Your task to perform on an android device: open app "Microsoft Outlook" (install if not already installed) Image 0: 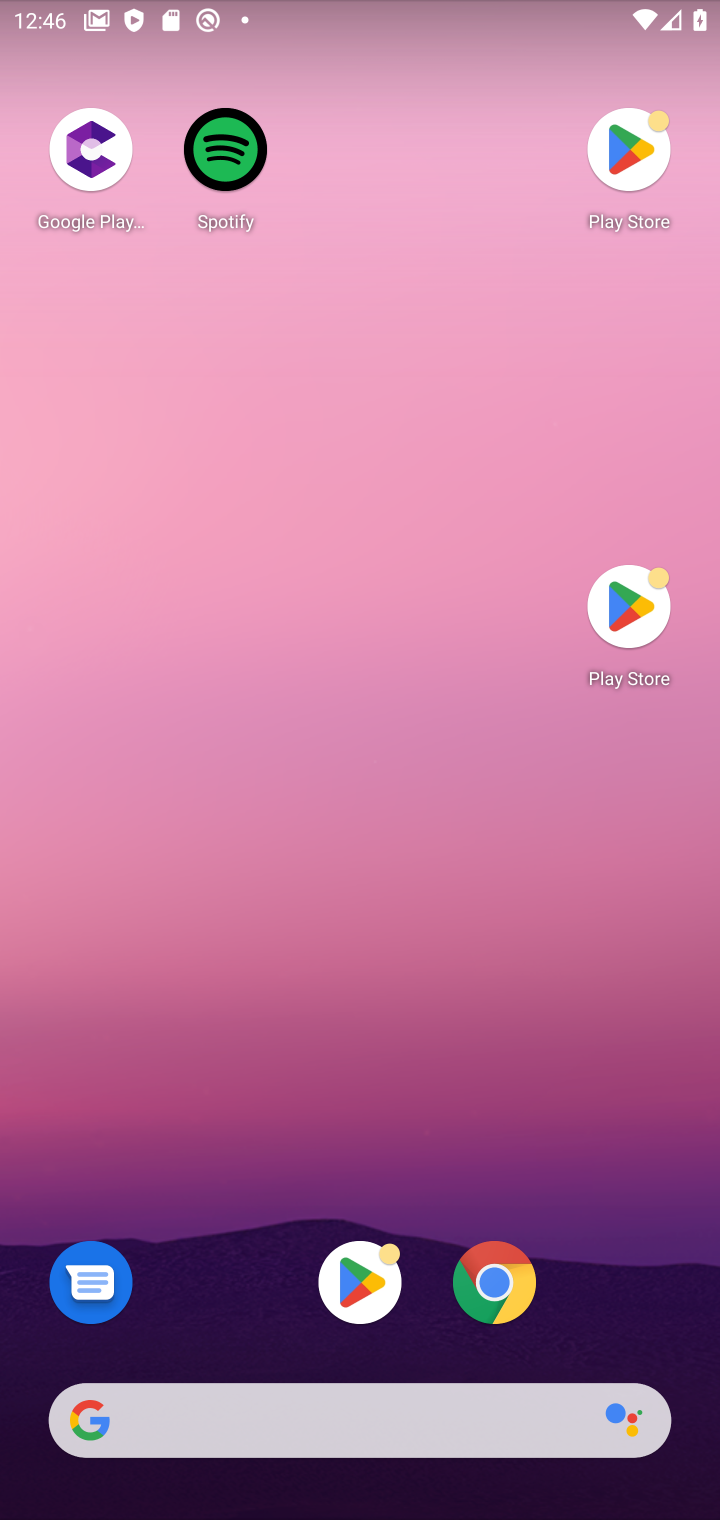
Step 0: drag from (417, 290) to (116, 149)
Your task to perform on an android device: open app "Microsoft Outlook" (install if not already installed) Image 1: 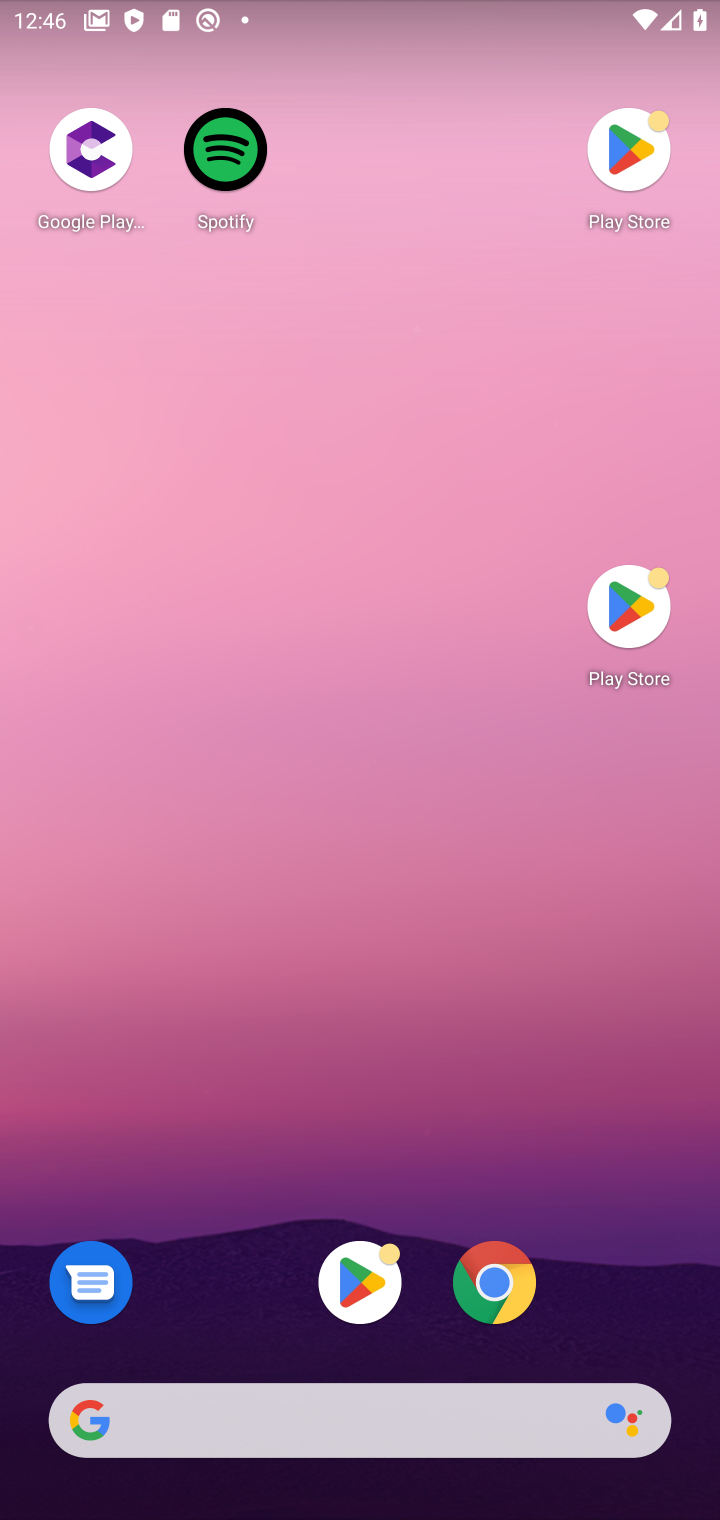
Step 1: click (320, 48)
Your task to perform on an android device: open app "Microsoft Outlook" (install if not already installed) Image 2: 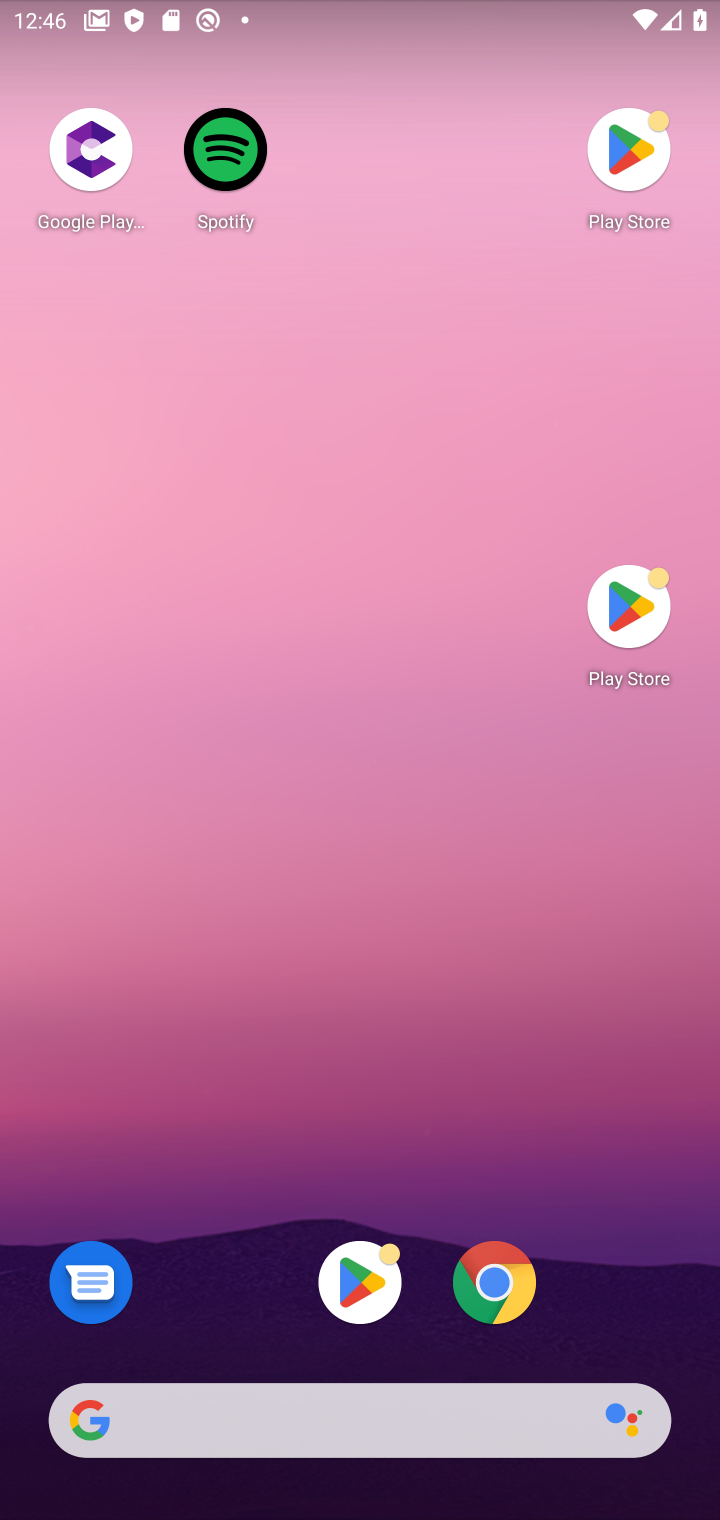
Step 2: click (406, 49)
Your task to perform on an android device: open app "Microsoft Outlook" (install if not already installed) Image 3: 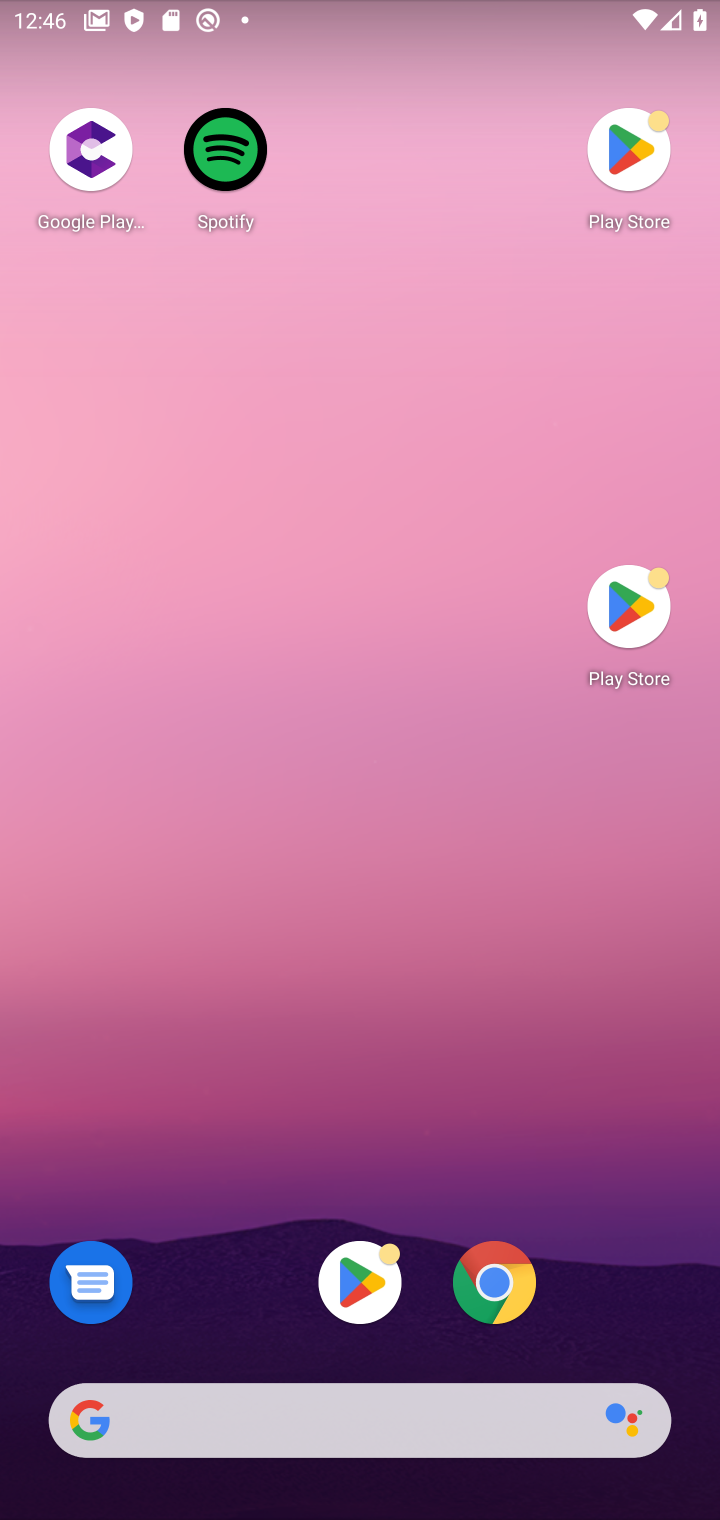
Step 3: click (387, 546)
Your task to perform on an android device: open app "Microsoft Outlook" (install if not already installed) Image 4: 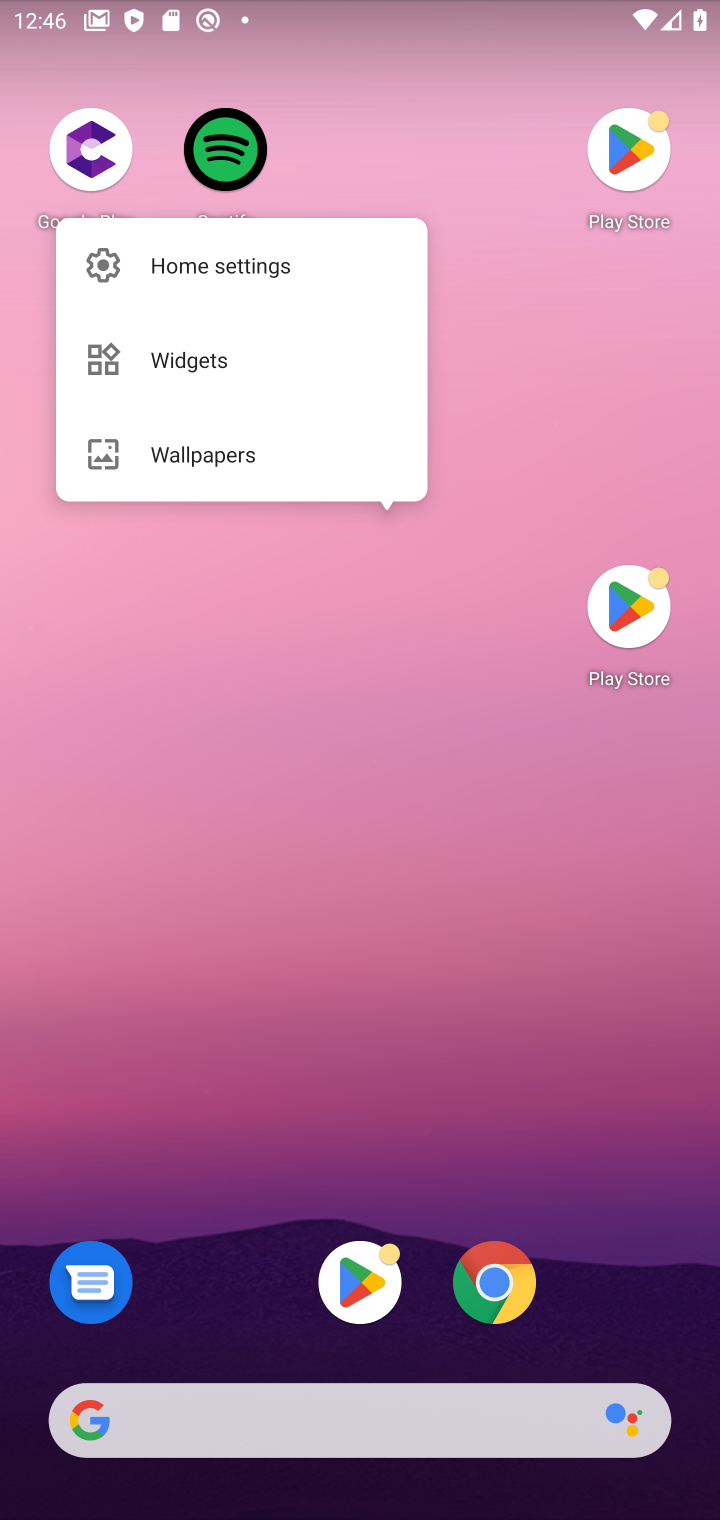
Step 4: drag from (342, 720) to (437, 773)
Your task to perform on an android device: open app "Microsoft Outlook" (install if not already installed) Image 5: 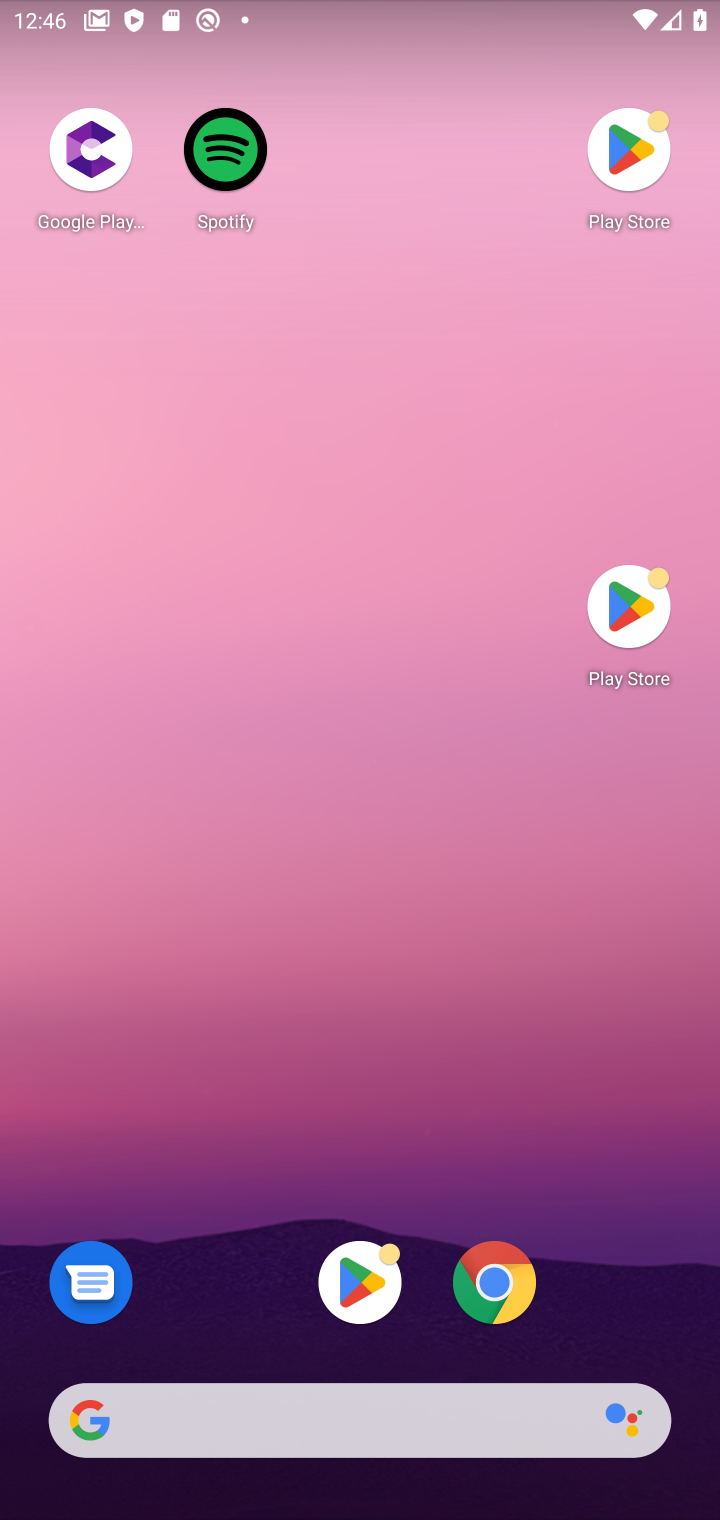
Step 5: drag from (263, 336) to (552, 129)
Your task to perform on an android device: open app "Microsoft Outlook" (install if not already installed) Image 6: 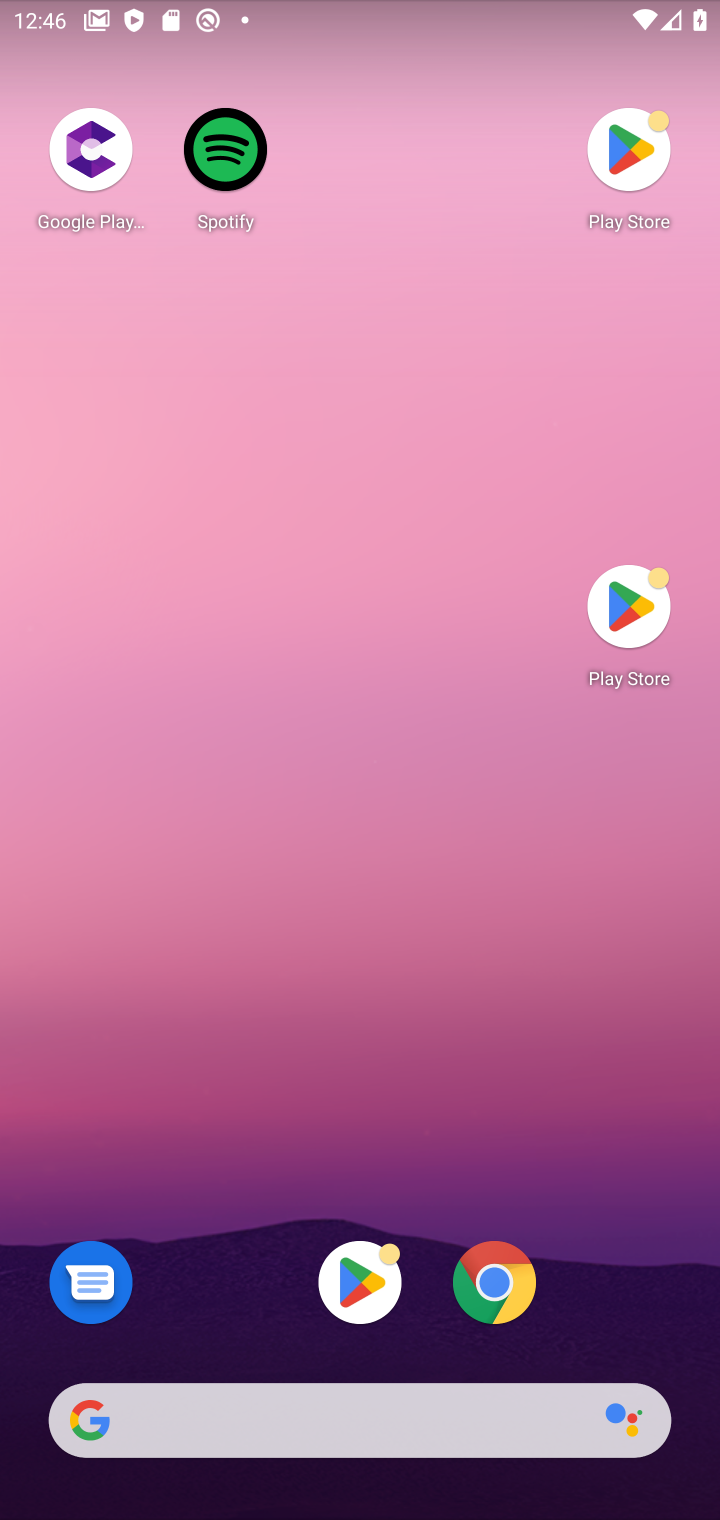
Step 6: drag from (414, 205) to (369, 25)
Your task to perform on an android device: open app "Microsoft Outlook" (install if not already installed) Image 7: 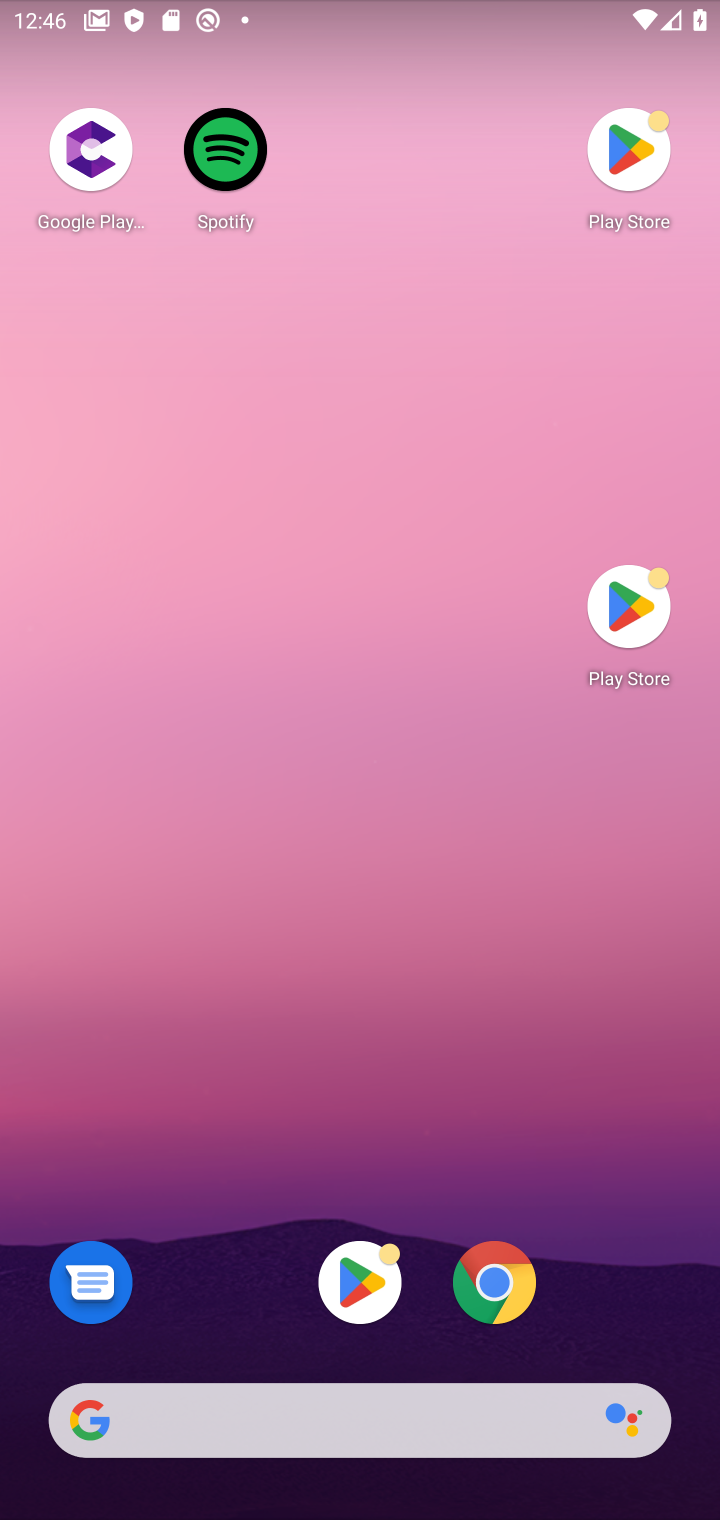
Step 7: drag from (417, 1074) to (539, 21)
Your task to perform on an android device: open app "Microsoft Outlook" (install if not already installed) Image 8: 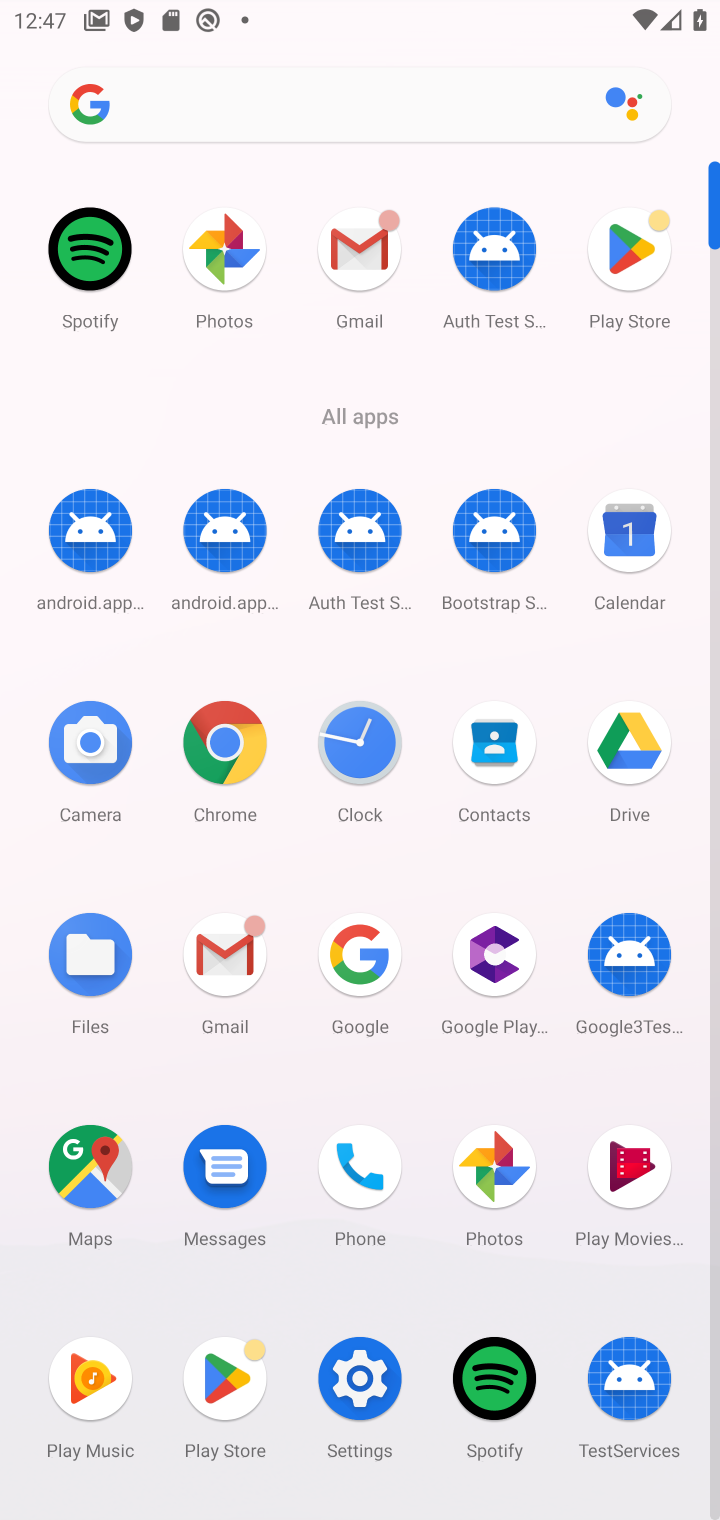
Step 8: click (214, 1379)
Your task to perform on an android device: open app "Microsoft Outlook" (install if not already installed) Image 9: 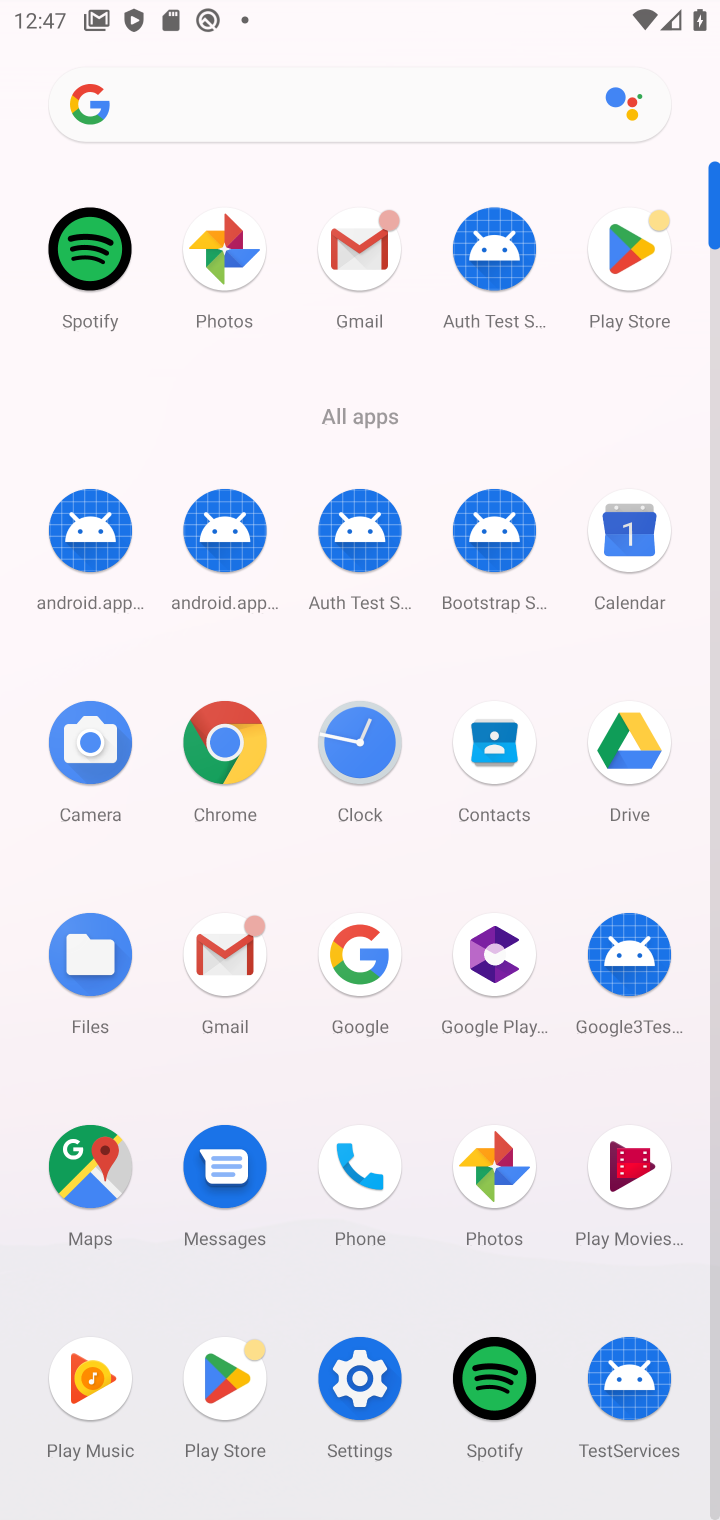
Step 9: drag from (214, 1379) to (275, 1428)
Your task to perform on an android device: open app "Microsoft Outlook" (install if not already installed) Image 10: 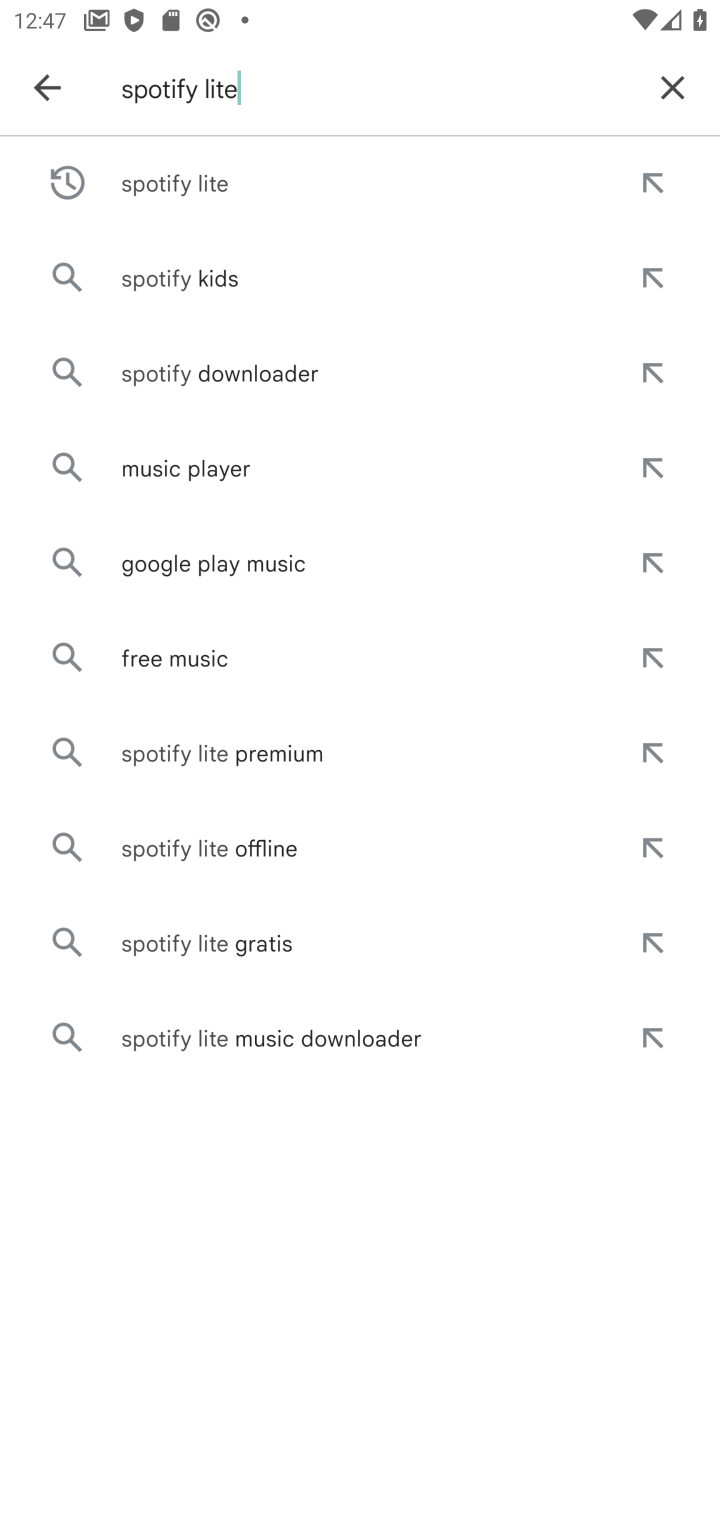
Step 10: click (249, 1410)
Your task to perform on an android device: open app "Microsoft Outlook" (install if not already installed) Image 11: 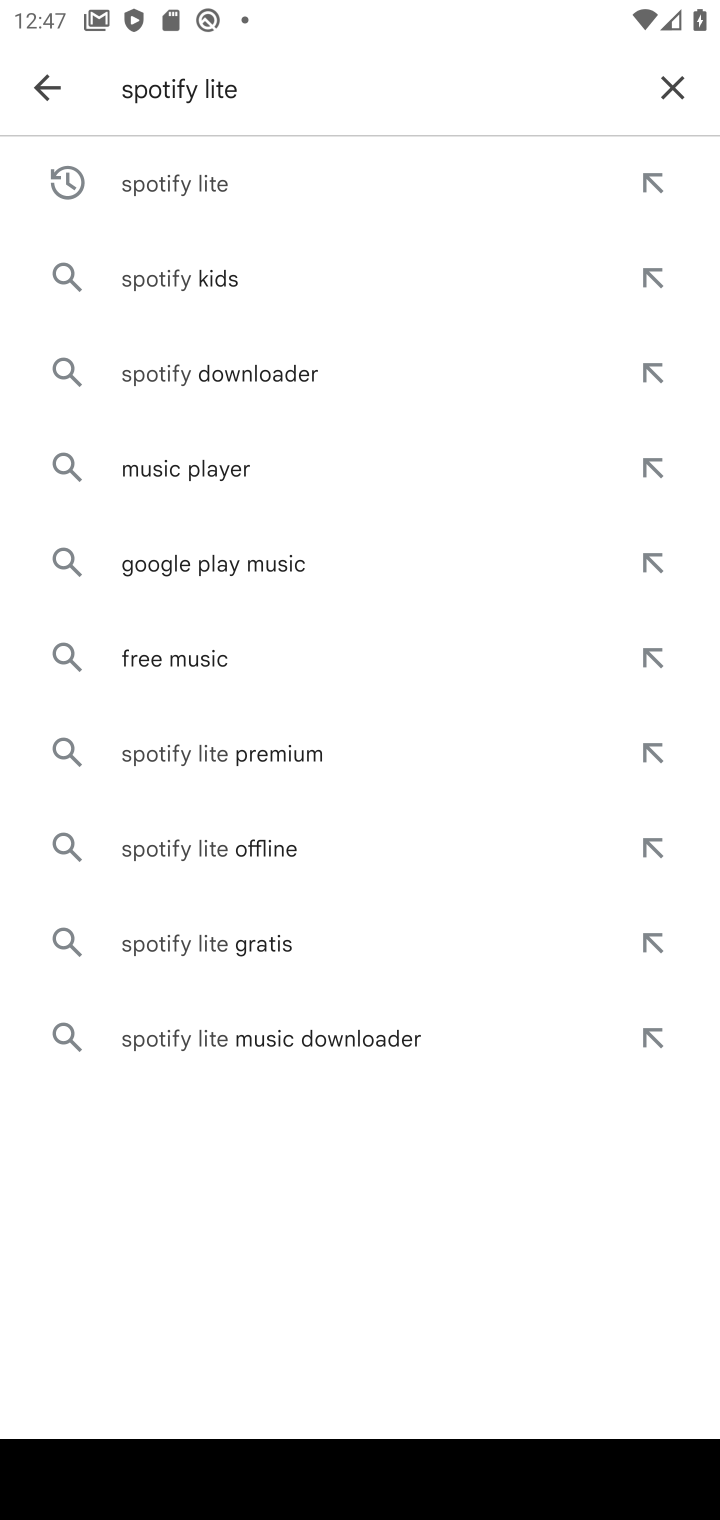
Step 11: click (658, 88)
Your task to perform on an android device: open app "Microsoft Outlook" (install if not already installed) Image 12: 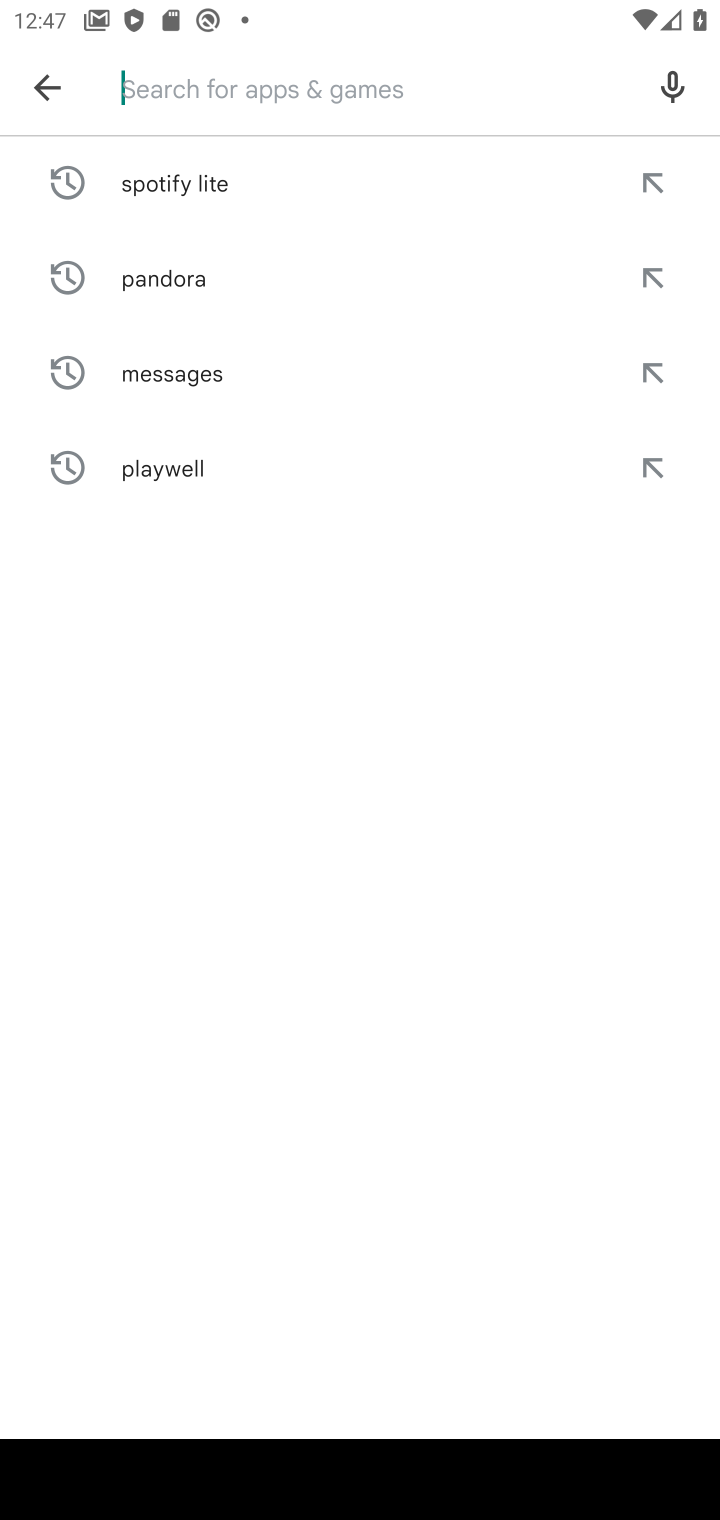
Step 12: type "Microsoft Outlook"
Your task to perform on an android device: open app "Microsoft Outlook" (install if not already installed) Image 13: 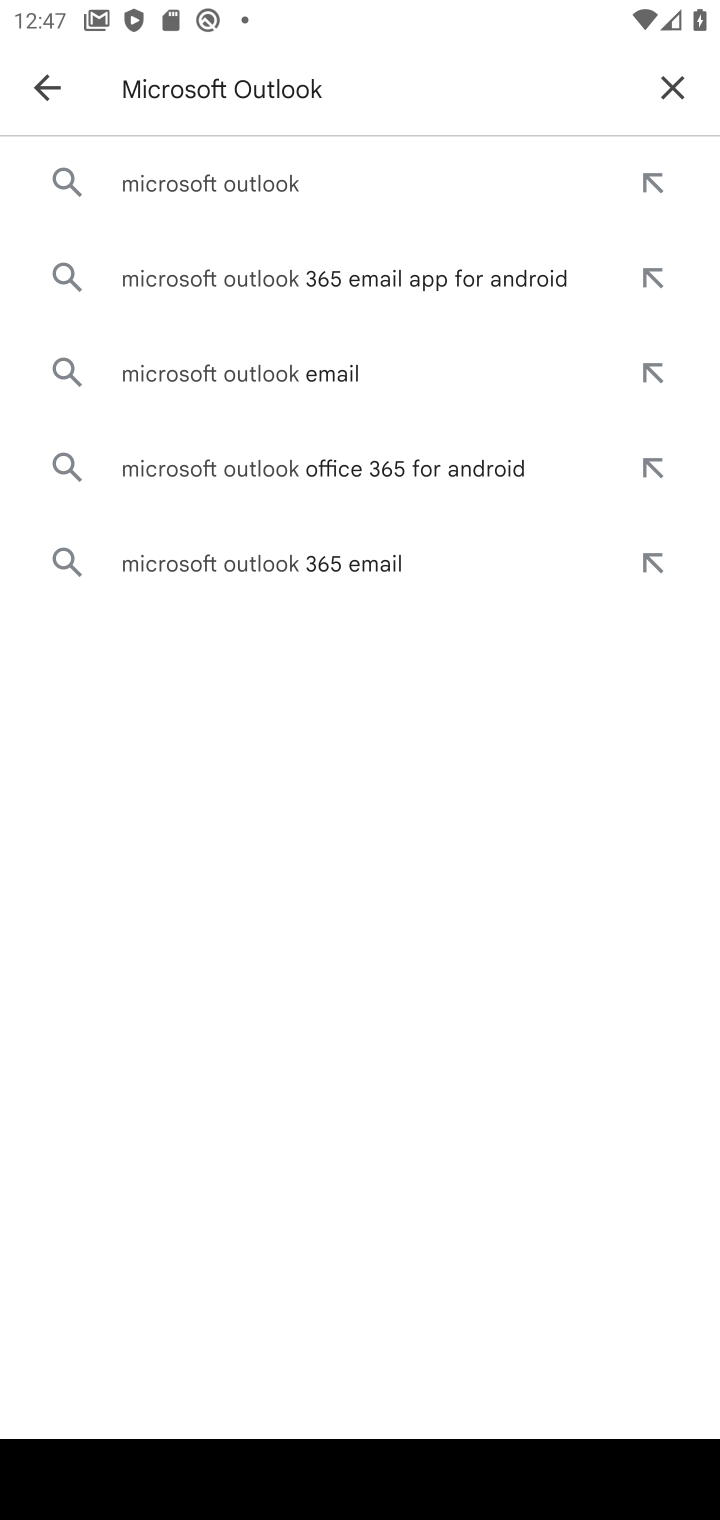
Step 13: click (224, 171)
Your task to perform on an android device: open app "Microsoft Outlook" (install if not already installed) Image 14: 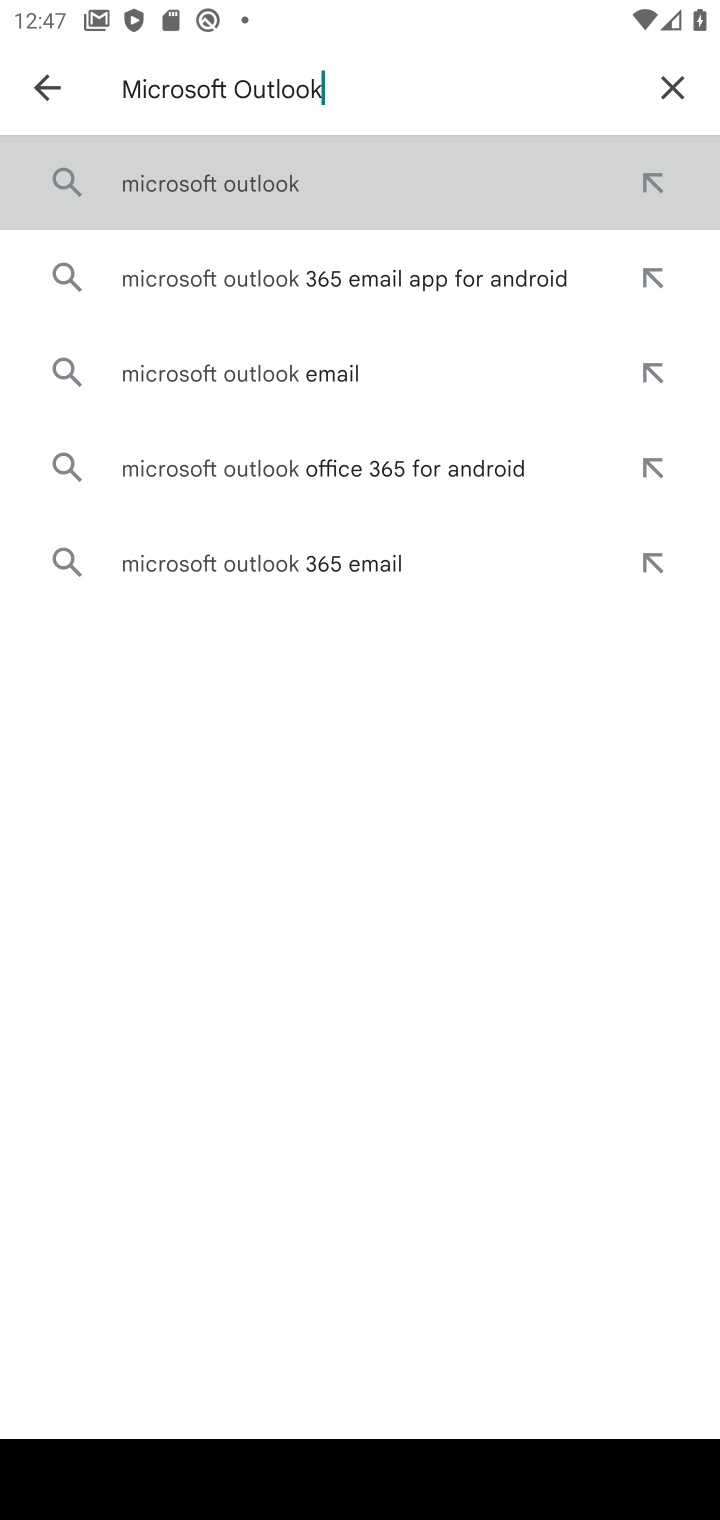
Step 14: click (233, 179)
Your task to perform on an android device: open app "Microsoft Outlook" (install if not already installed) Image 15: 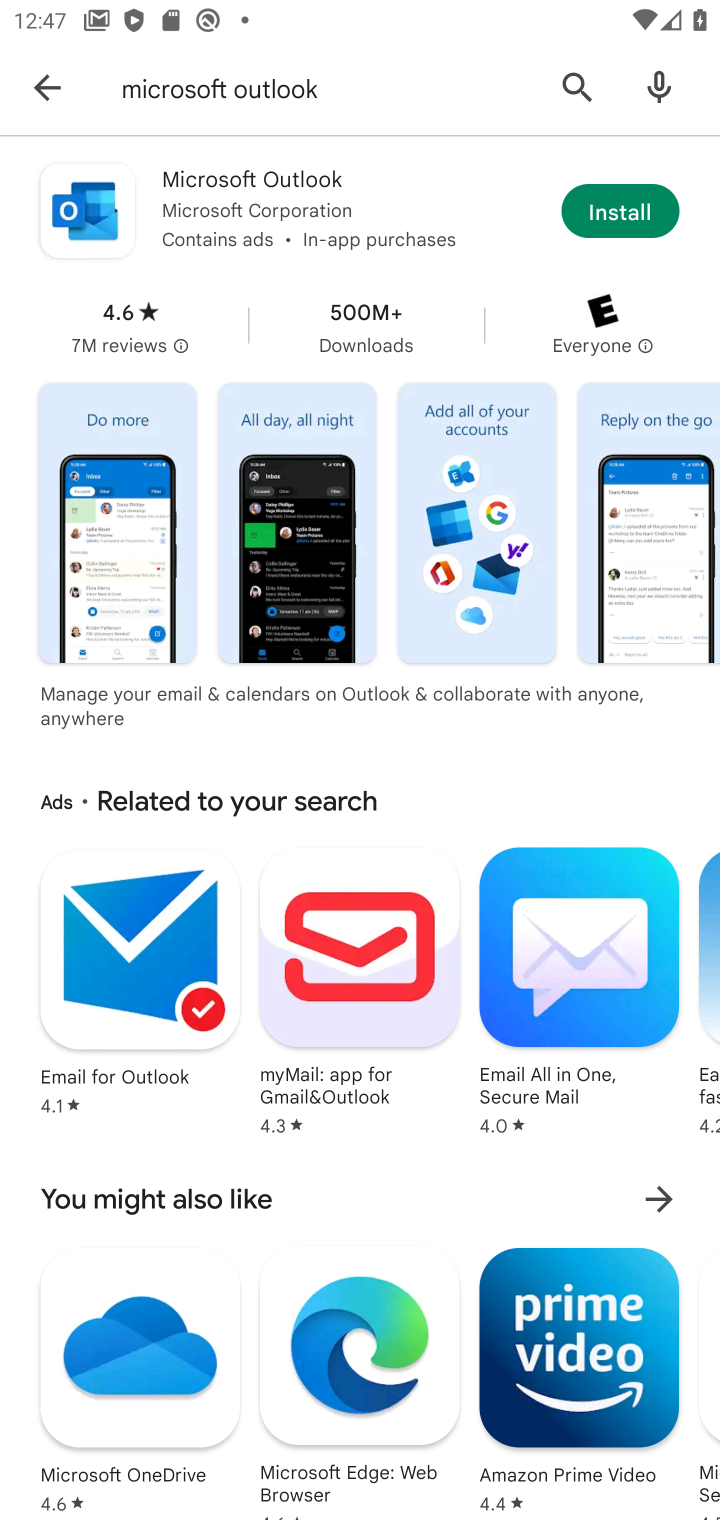
Step 15: click (634, 198)
Your task to perform on an android device: open app "Microsoft Outlook" (install if not already installed) Image 16: 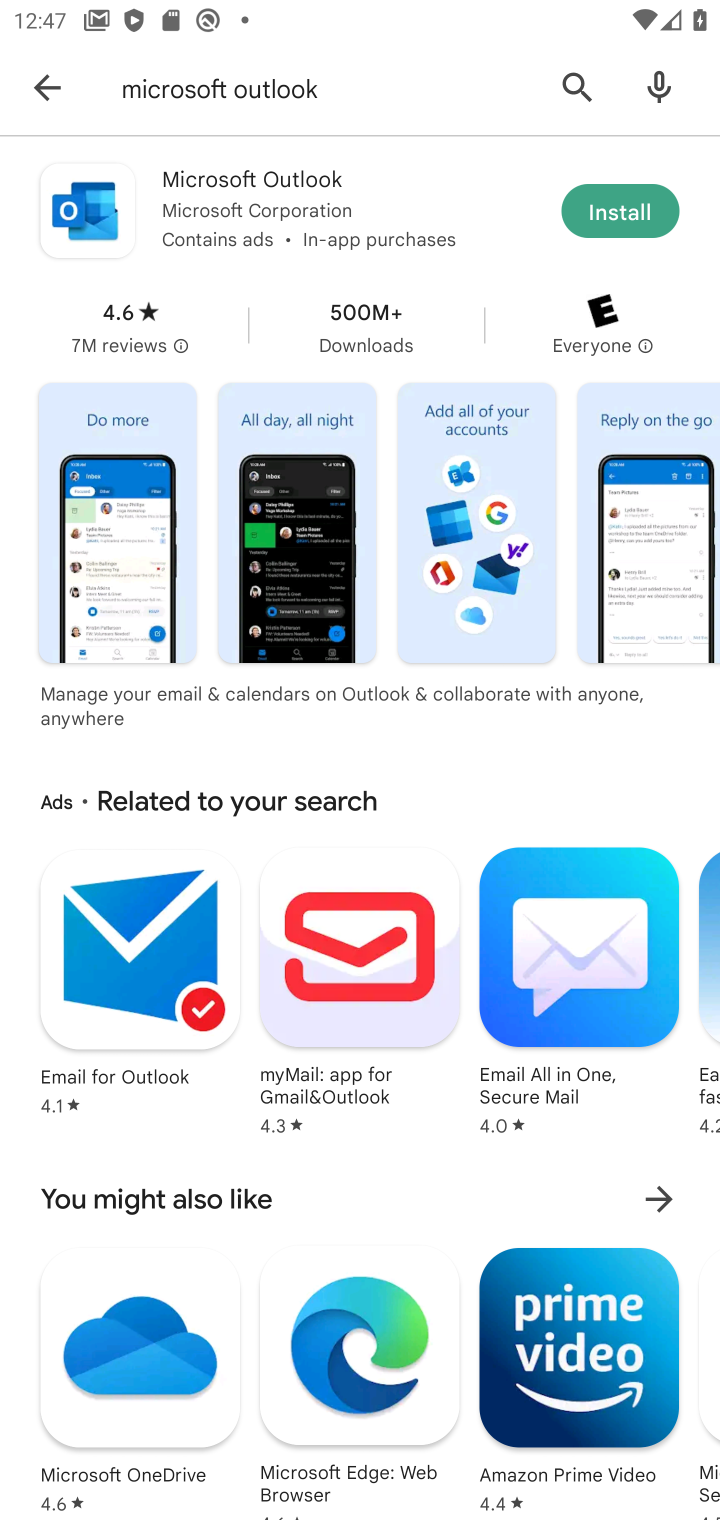
Step 16: click (639, 203)
Your task to perform on an android device: open app "Microsoft Outlook" (install if not already installed) Image 17: 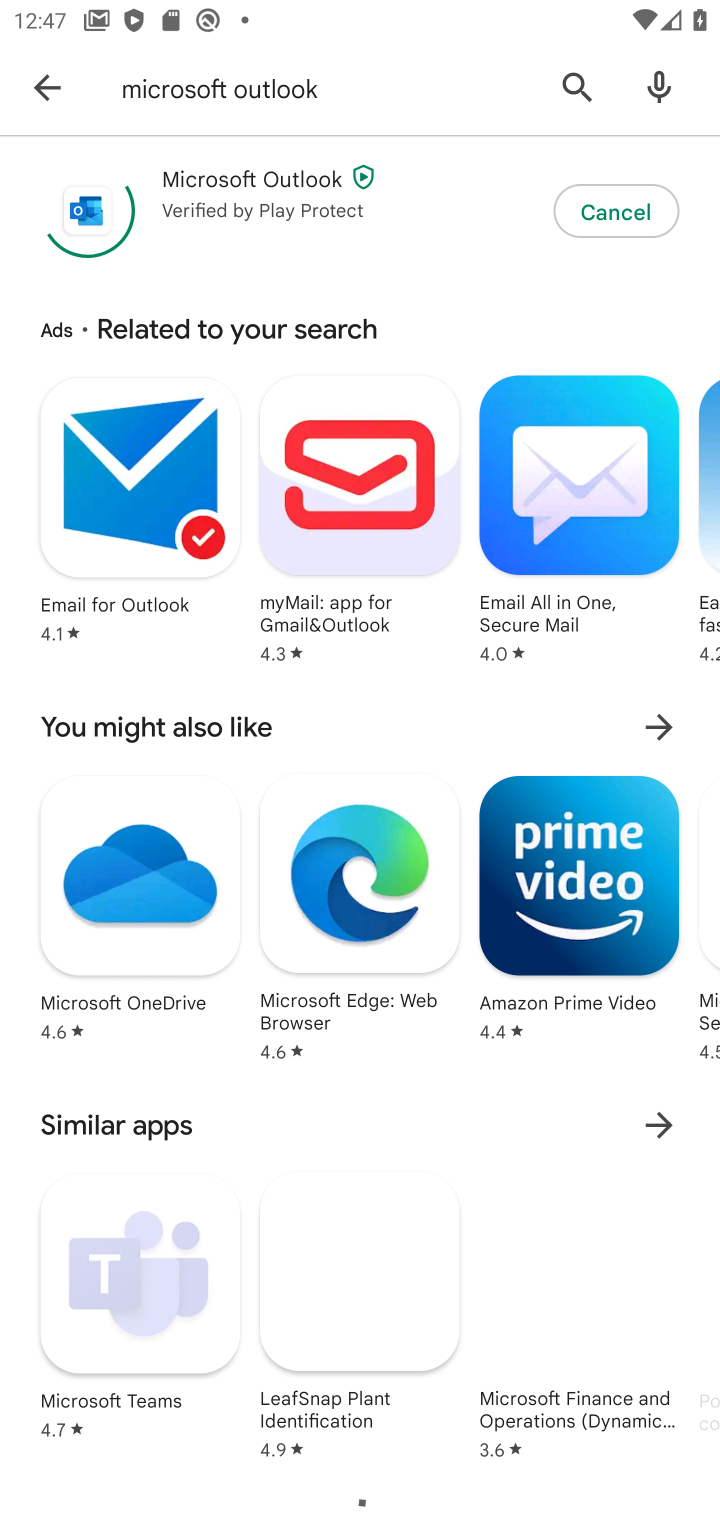
Step 17: click (641, 205)
Your task to perform on an android device: open app "Microsoft Outlook" (install if not already installed) Image 18: 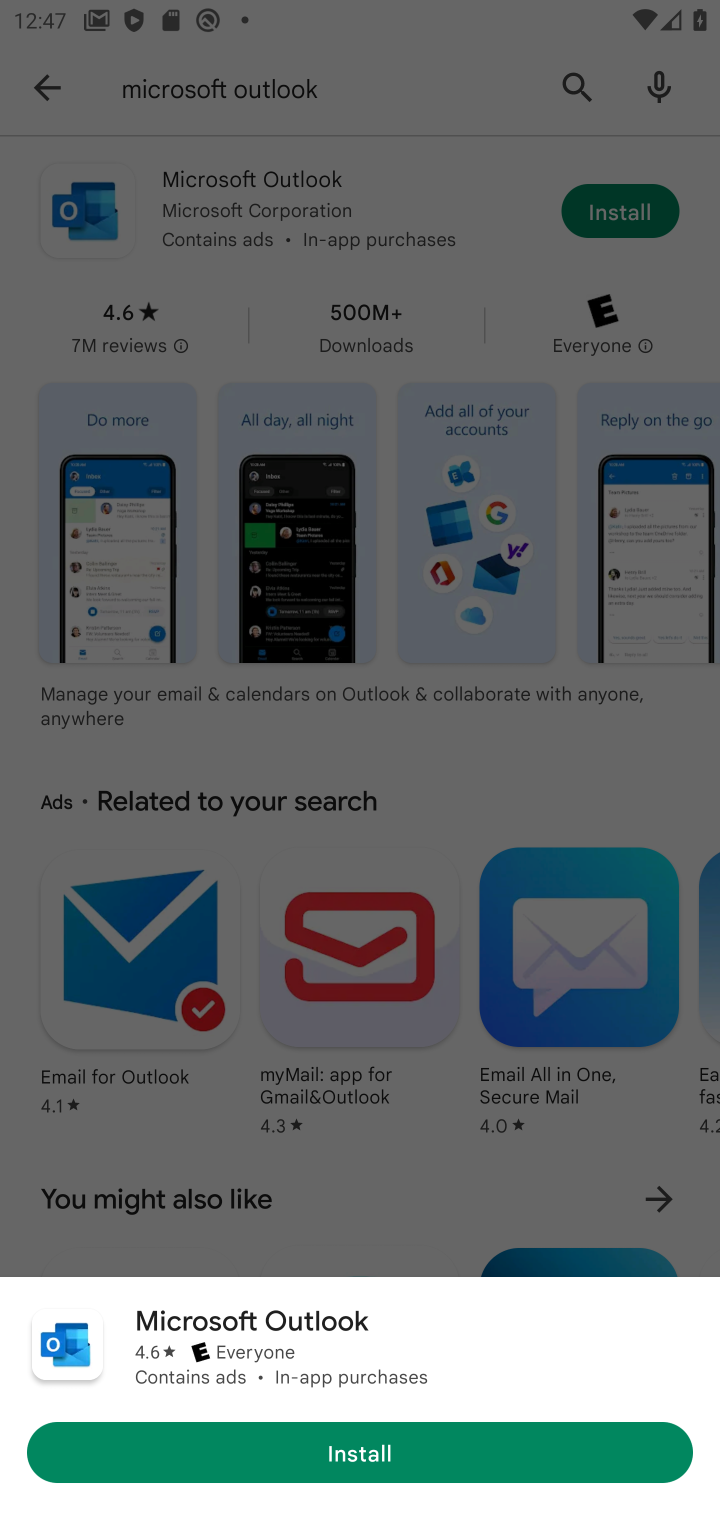
Step 18: click (379, 1451)
Your task to perform on an android device: open app "Microsoft Outlook" (install if not already installed) Image 19: 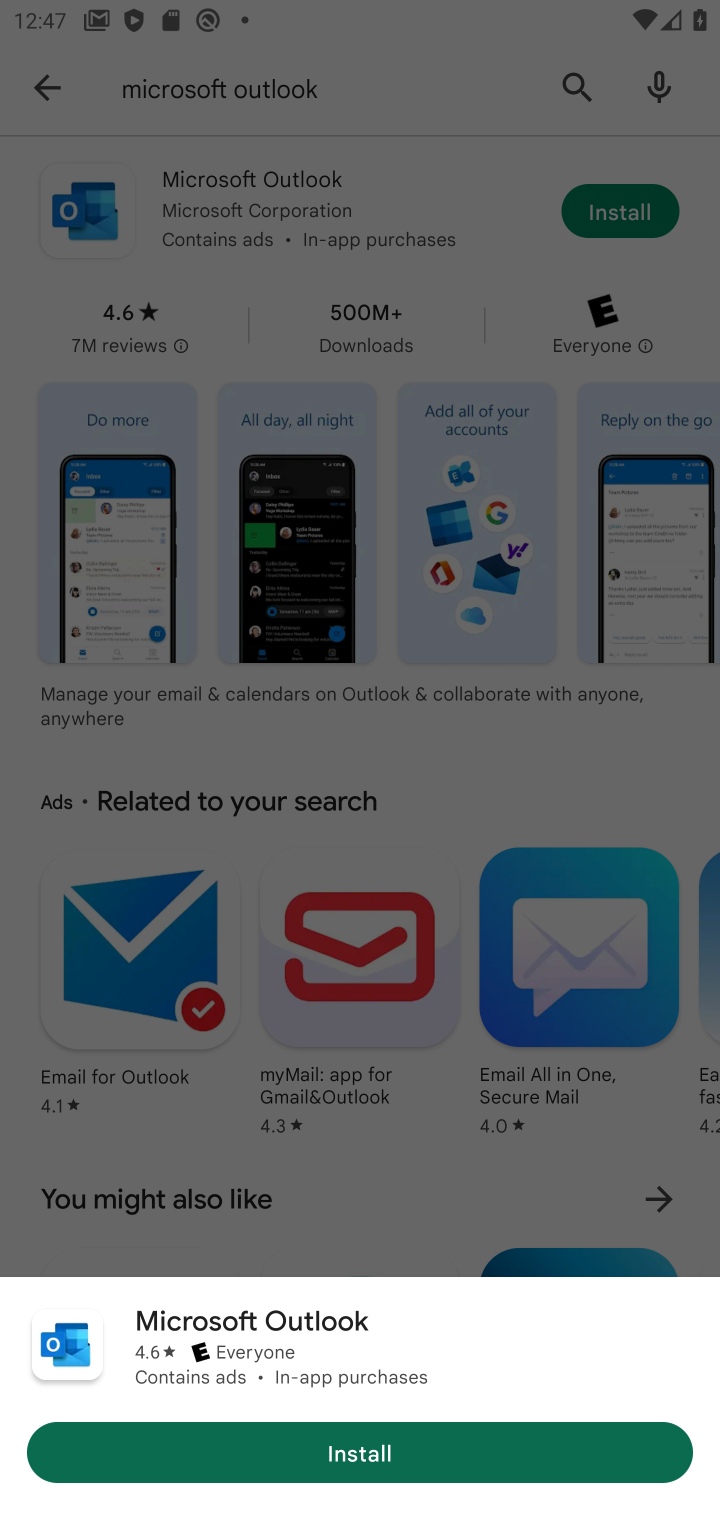
Step 19: click (379, 1442)
Your task to perform on an android device: open app "Microsoft Outlook" (install if not already installed) Image 20: 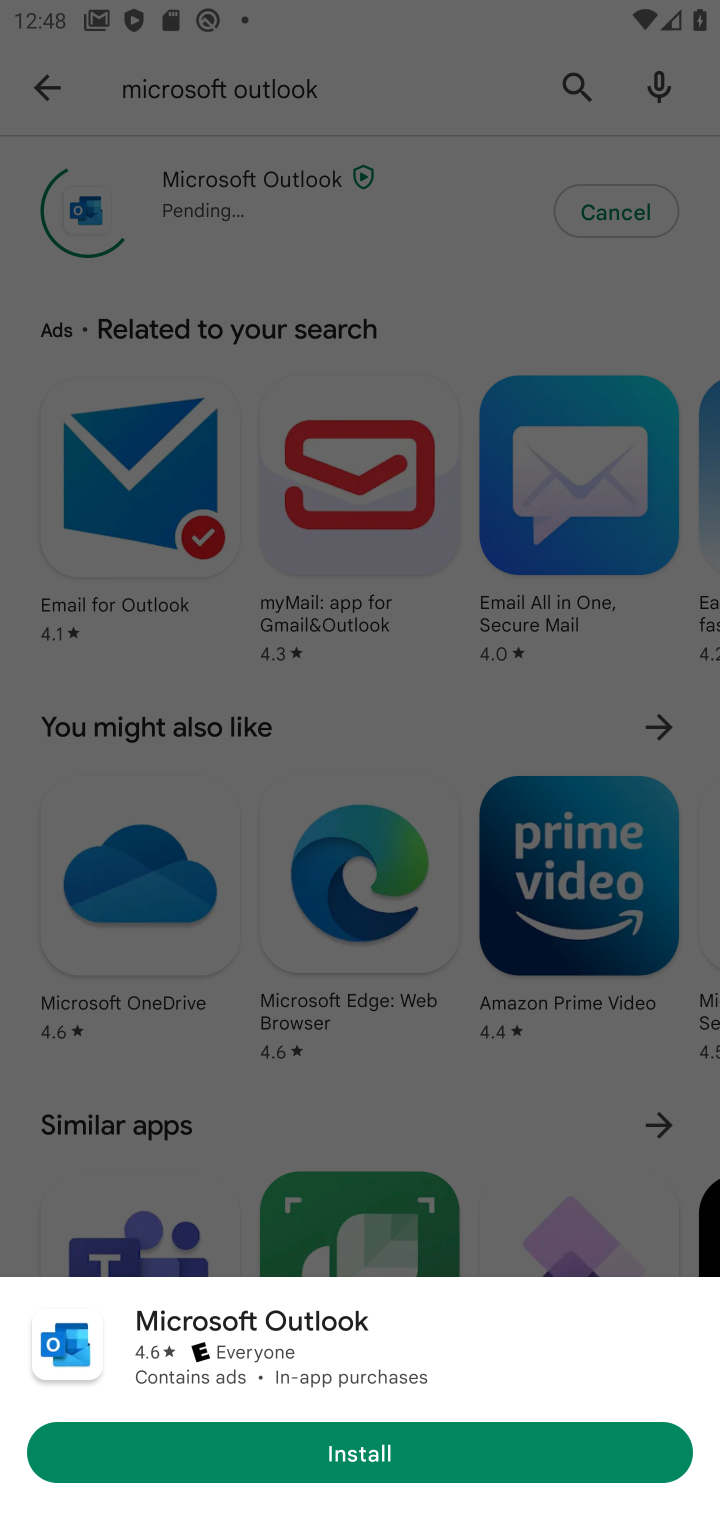
Step 20: click (395, 1475)
Your task to perform on an android device: open app "Microsoft Outlook" (install if not already installed) Image 21: 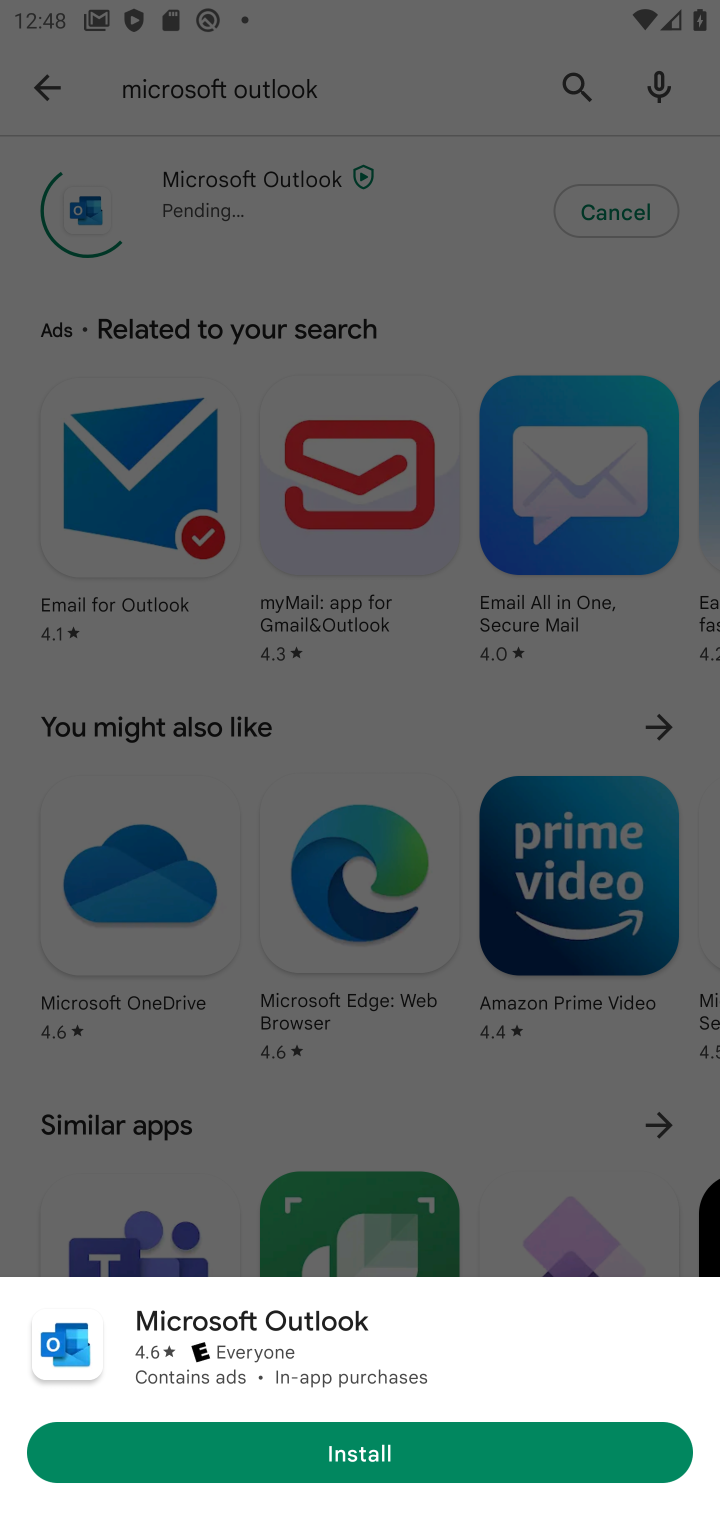
Step 21: click (395, 1475)
Your task to perform on an android device: open app "Microsoft Outlook" (install if not already installed) Image 22: 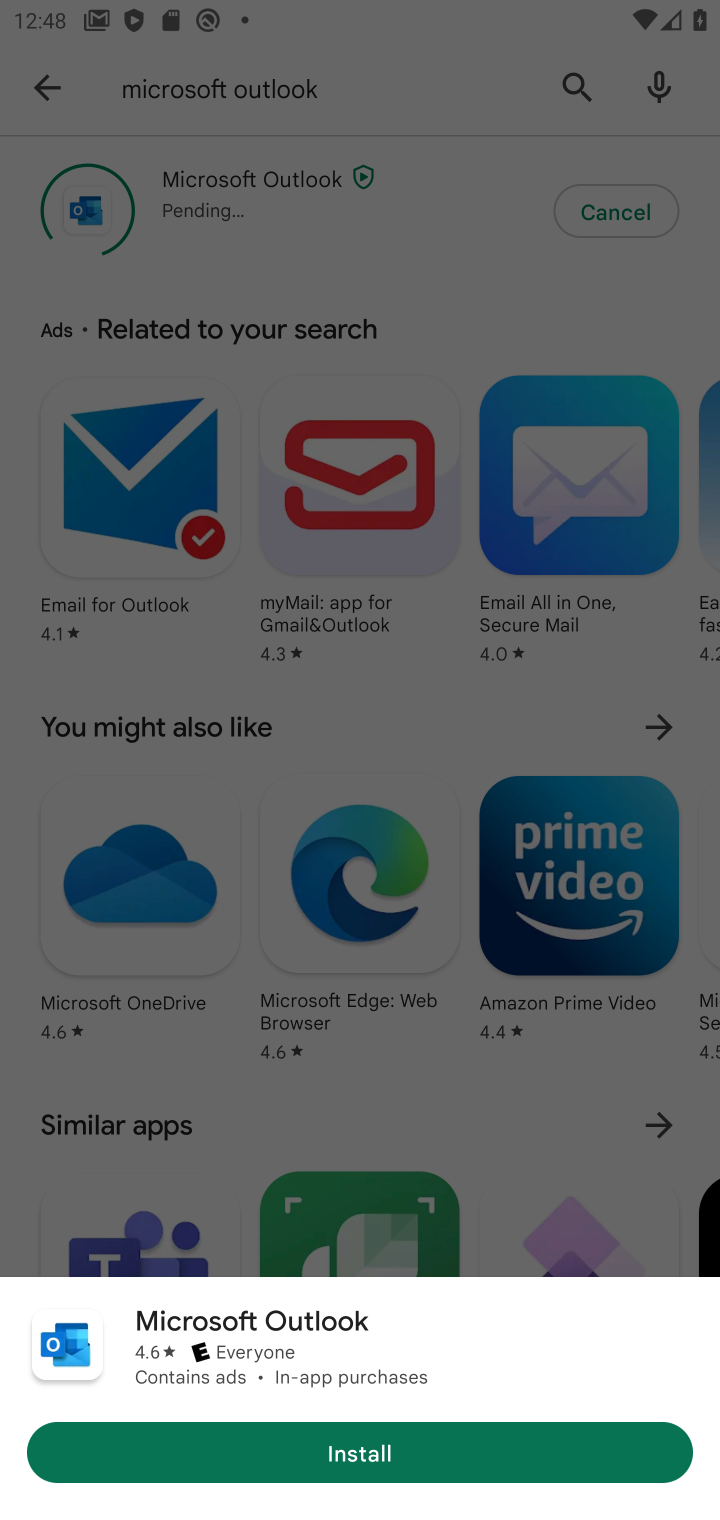
Step 22: click (403, 1473)
Your task to perform on an android device: open app "Microsoft Outlook" (install if not already installed) Image 23: 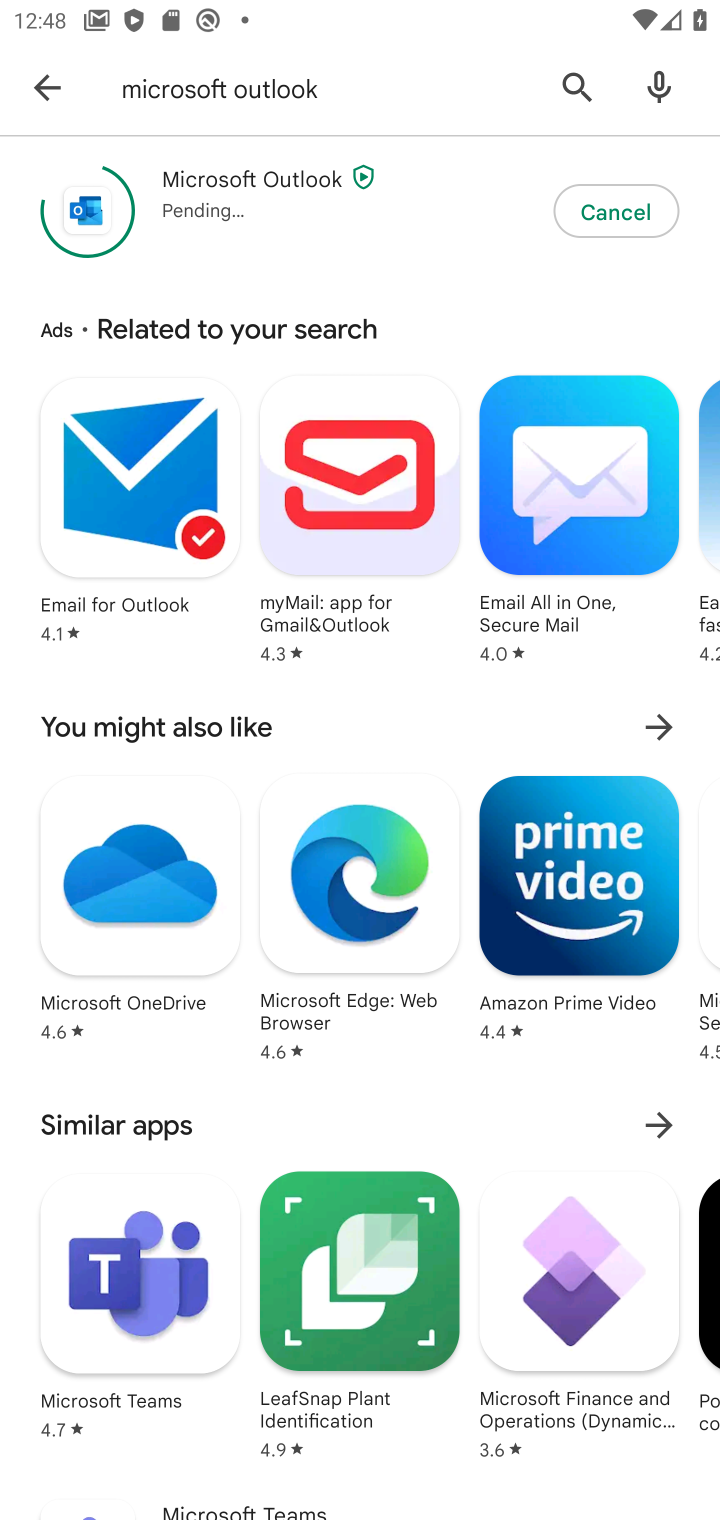
Step 23: click (441, 1456)
Your task to perform on an android device: open app "Microsoft Outlook" (install if not already installed) Image 24: 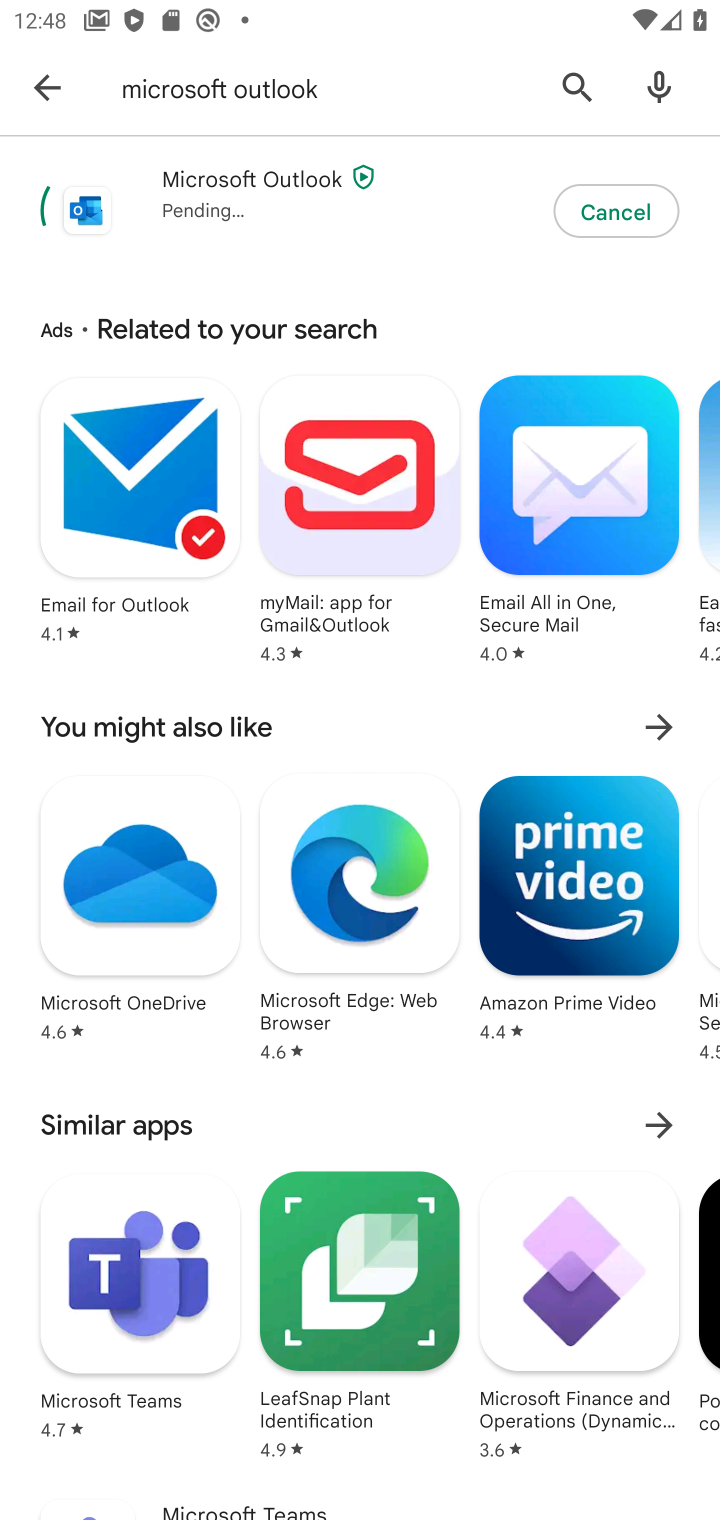
Step 24: click (447, 1456)
Your task to perform on an android device: open app "Microsoft Outlook" (install if not already installed) Image 25: 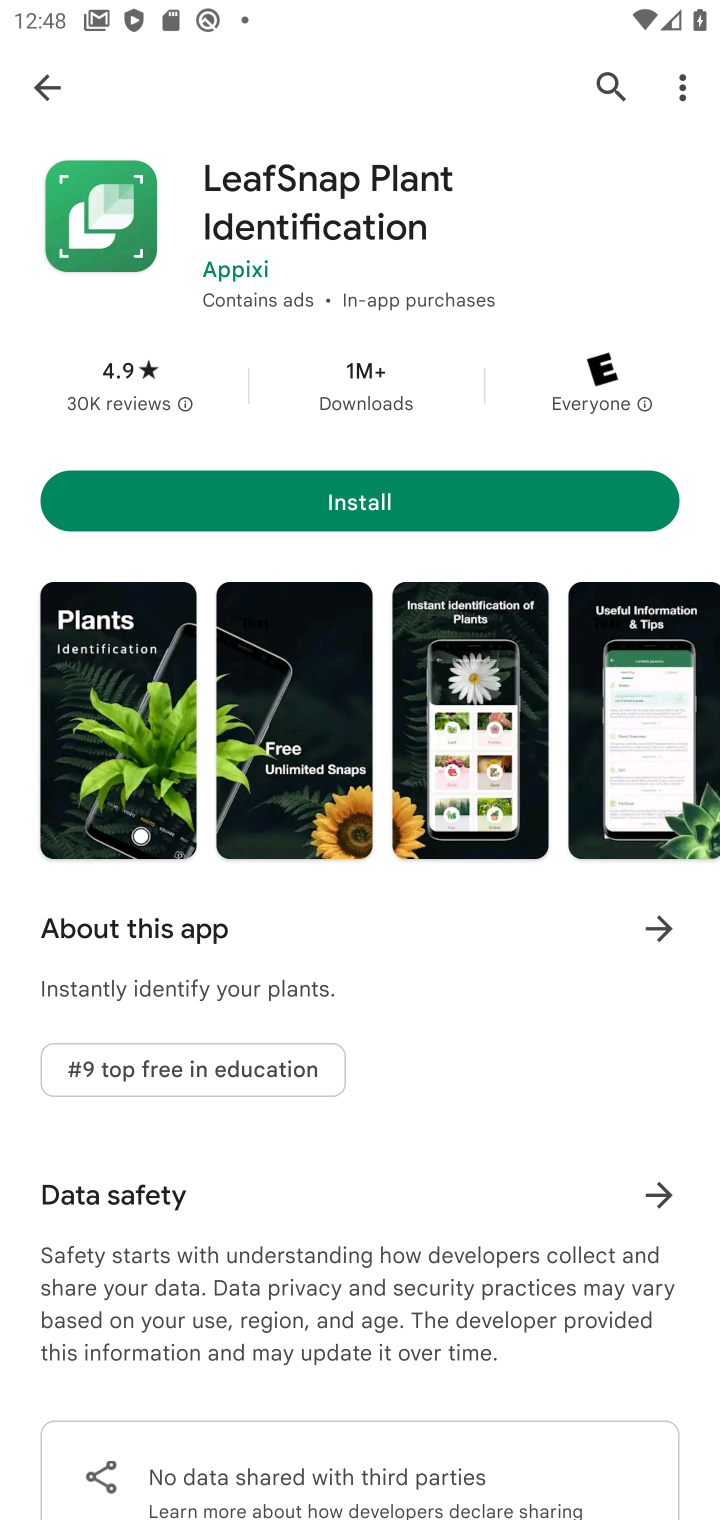
Step 25: click (388, 497)
Your task to perform on an android device: open app "Microsoft Outlook" (install if not already installed) Image 26: 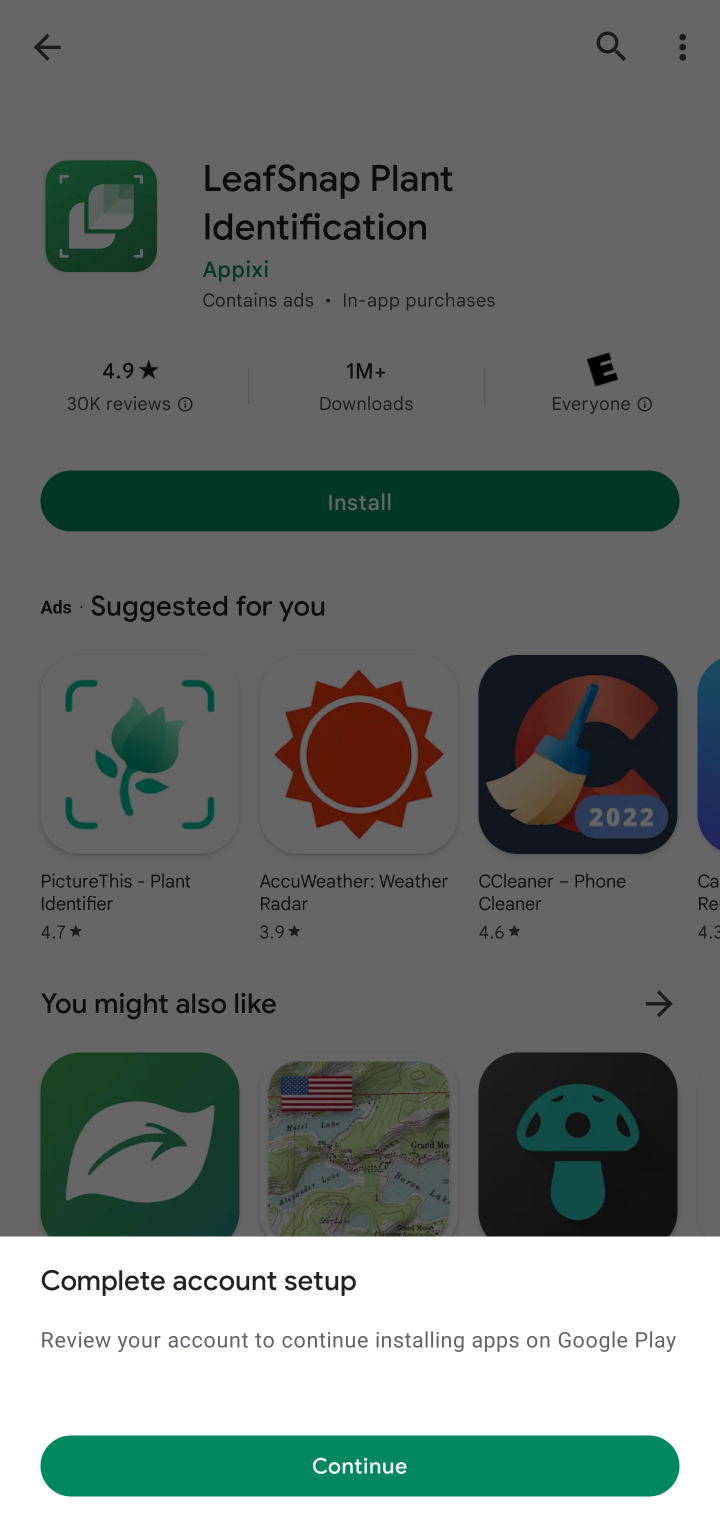
Step 26: click (429, 1479)
Your task to perform on an android device: open app "Microsoft Outlook" (install if not already installed) Image 27: 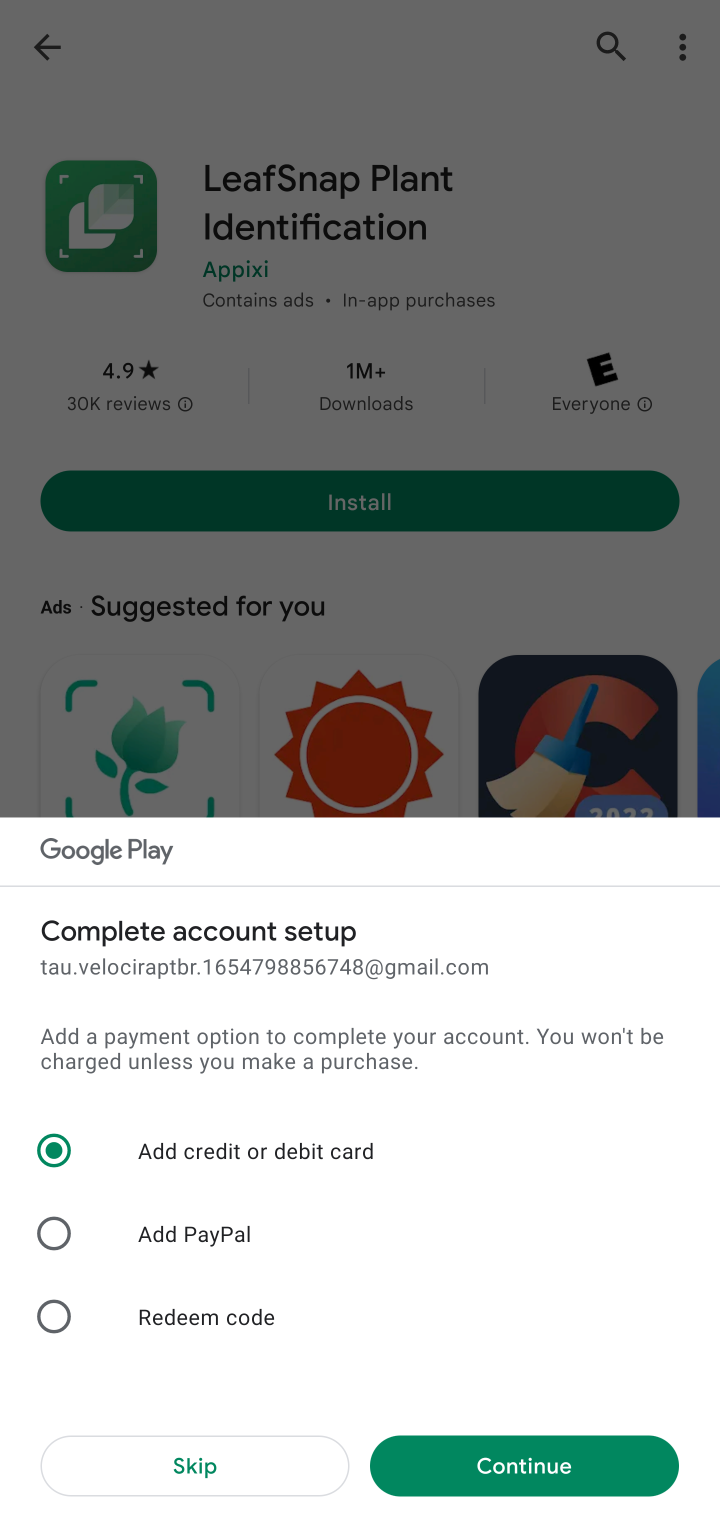
Step 27: click (213, 1460)
Your task to perform on an android device: open app "Microsoft Outlook" (install if not already installed) Image 28: 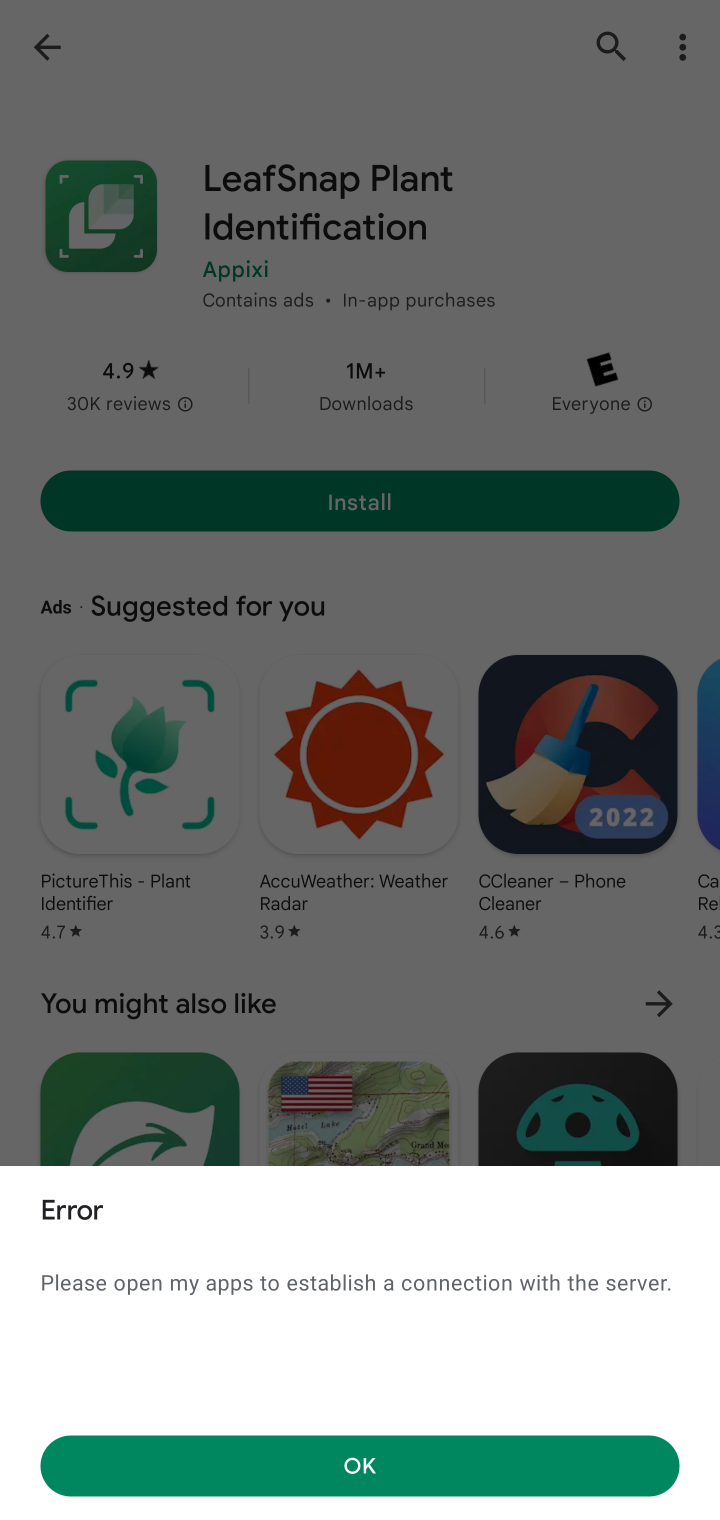
Step 28: click (367, 1470)
Your task to perform on an android device: open app "Microsoft Outlook" (install if not already installed) Image 29: 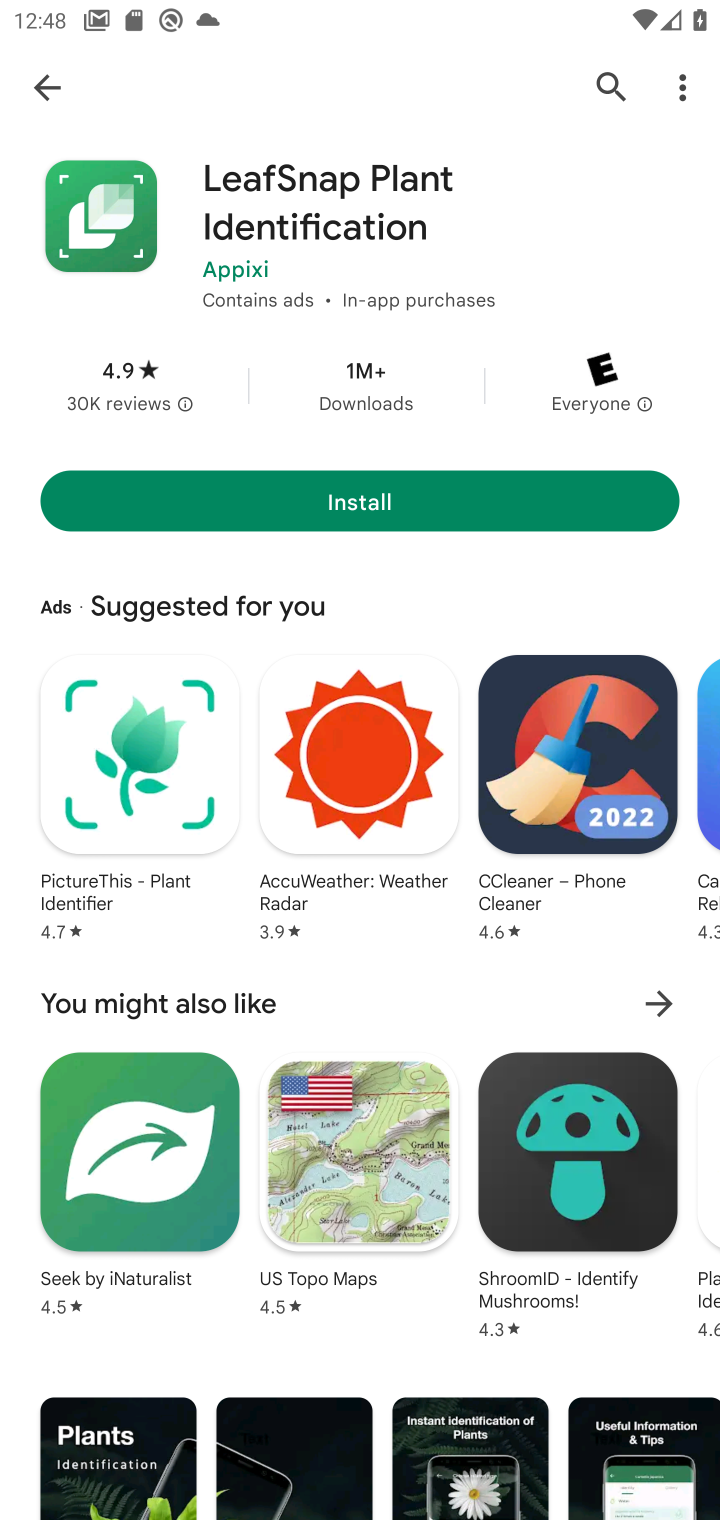
Step 29: task complete